Your task to perform on an android device: Open internet settings Image 0: 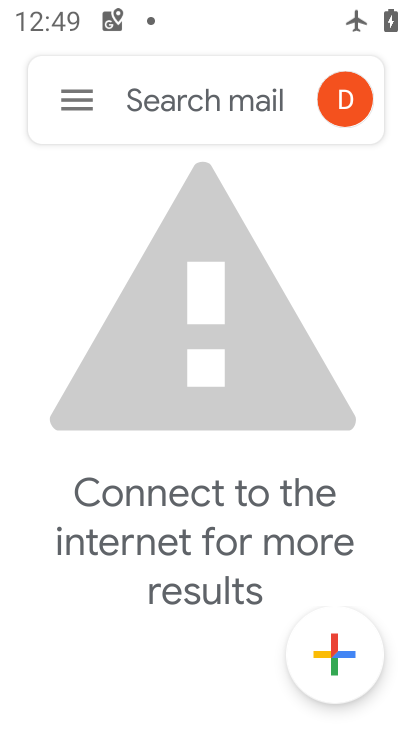
Step 0: press home button
Your task to perform on an android device: Open internet settings Image 1: 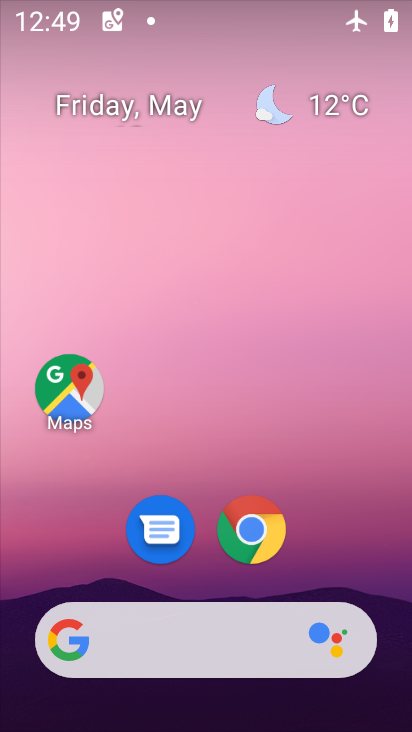
Step 1: drag from (311, 538) to (340, 218)
Your task to perform on an android device: Open internet settings Image 2: 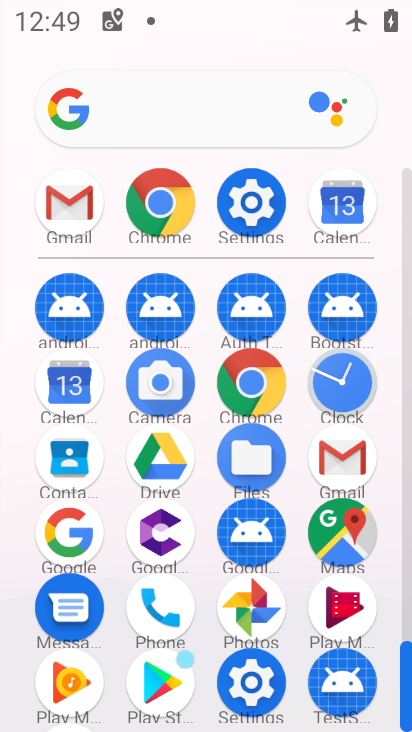
Step 2: click (273, 205)
Your task to perform on an android device: Open internet settings Image 3: 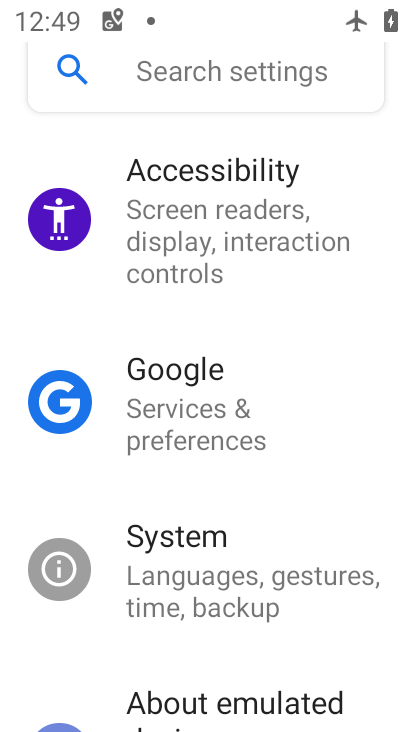
Step 3: drag from (237, 190) to (217, 704)
Your task to perform on an android device: Open internet settings Image 4: 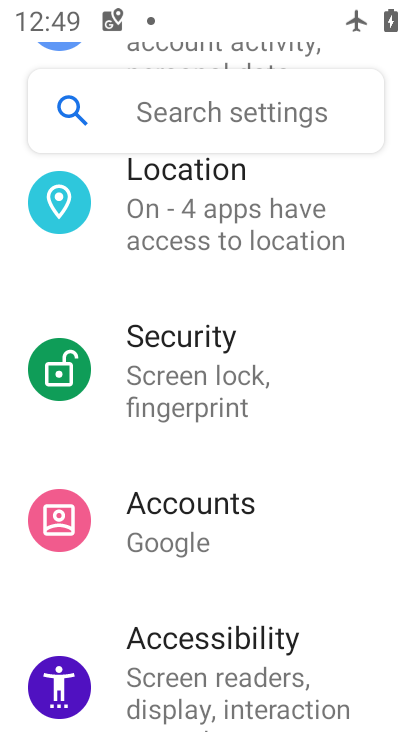
Step 4: drag from (201, 144) to (206, 659)
Your task to perform on an android device: Open internet settings Image 5: 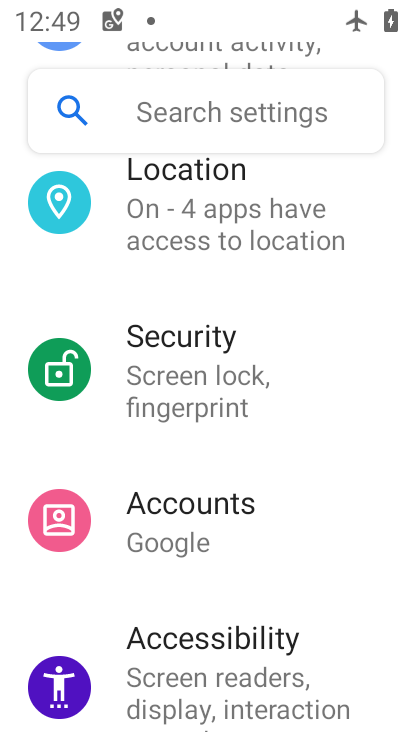
Step 5: click (202, 474)
Your task to perform on an android device: Open internet settings Image 6: 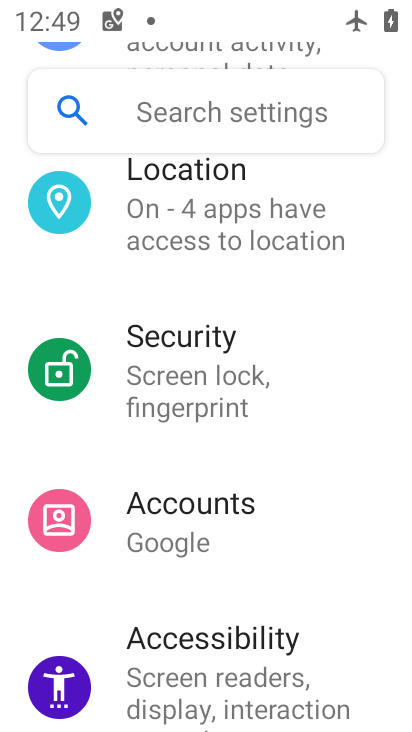
Step 6: drag from (121, 417) to (125, 518)
Your task to perform on an android device: Open internet settings Image 7: 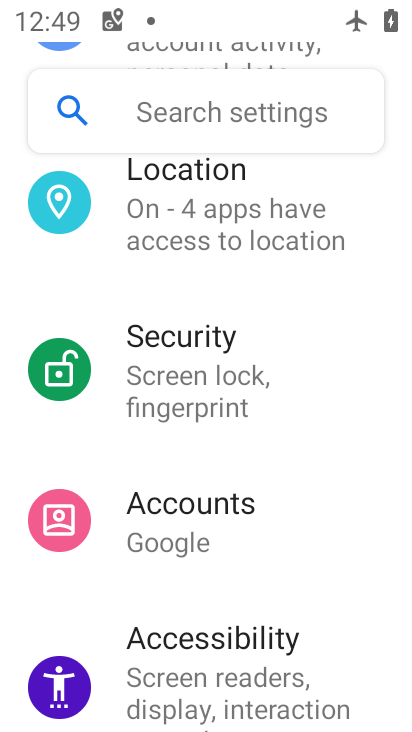
Step 7: drag from (157, 236) to (168, 539)
Your task to perform on an android device: Open internet settings Image 8: 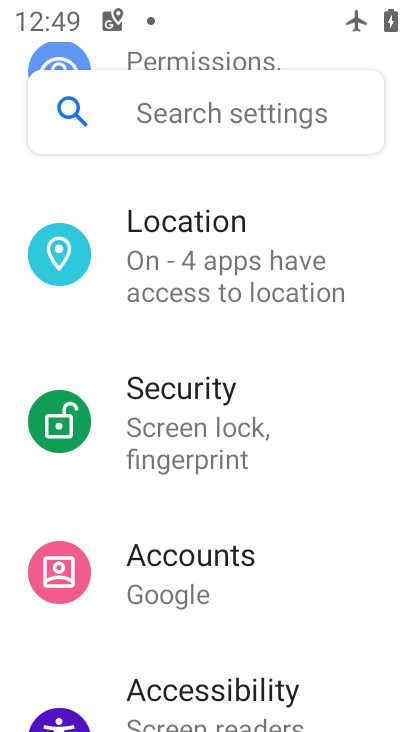
Step 8: drag from (160, 373) to (165, 554)
Your task to perform on an android device: Open internet settings Image 9: 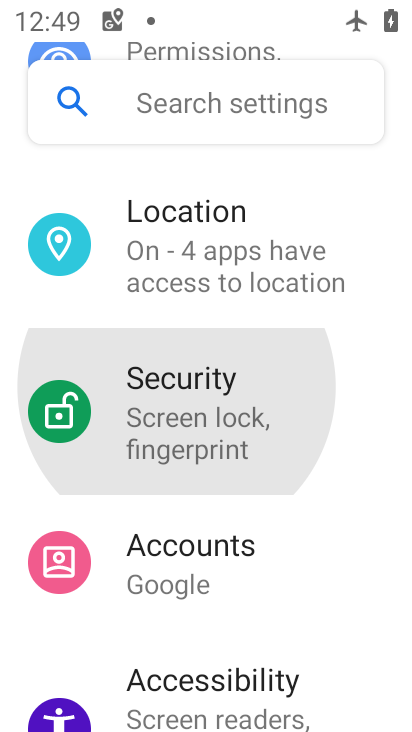
Step 9: drag from (190, 250) to (182, 582)
Your task to perform on an android device: Open internet settings Image 10: 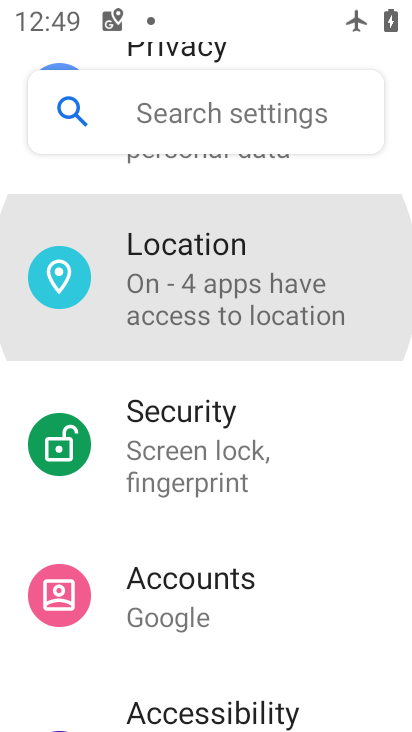
Step 10: drag from (175, 522) to (194, 624)
Your task to perform on an android device: Open internet settings Image 11: 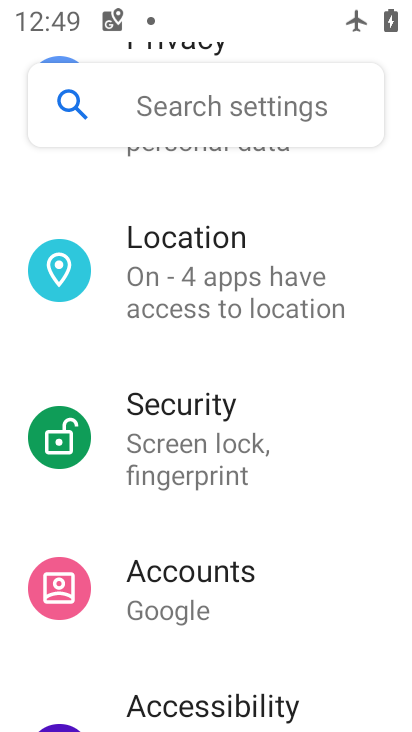
Step 11: drag from (186, 291) to (185, 669)
Your task to perform on an android device: Open internet settings Image 12: 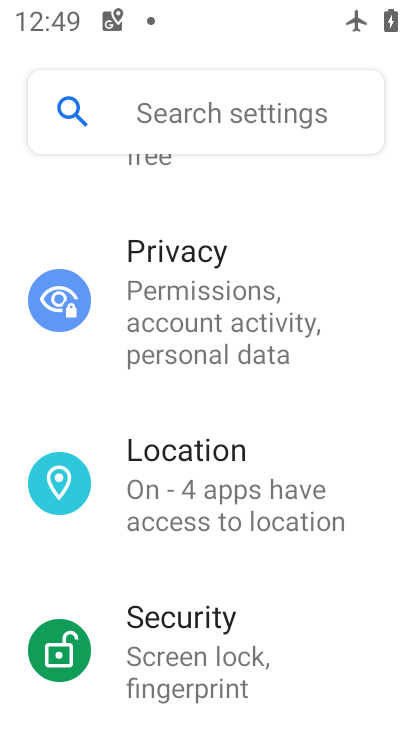
Step 12: drag from (160, 343) to (149, 519)
Your task to perform on an android device: Open internet settings Image 13: 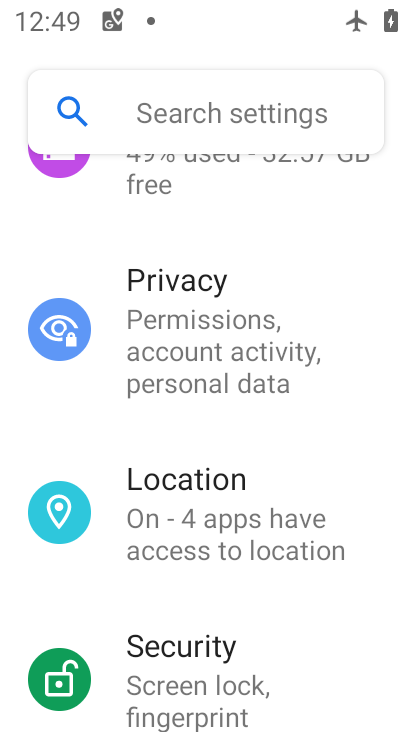
Step 13: drag from (276, 229) to (278, 508)
Your task to perform on an android device: Open internet settings Image 14: 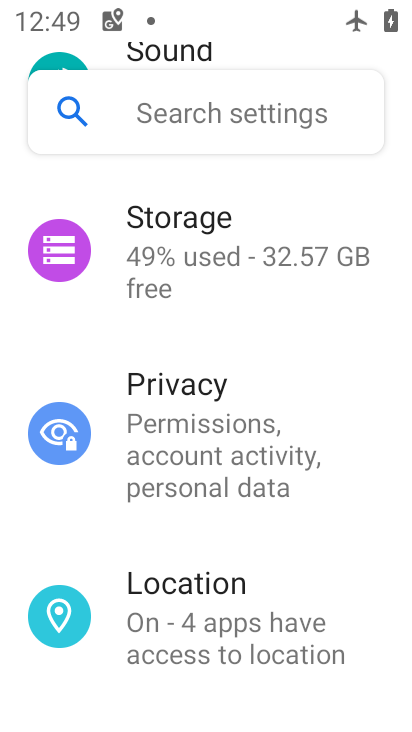
Step 14: drag from (315, 356) to (321, 542)
Your task to perform on an android device: Open internet settings Image 15: 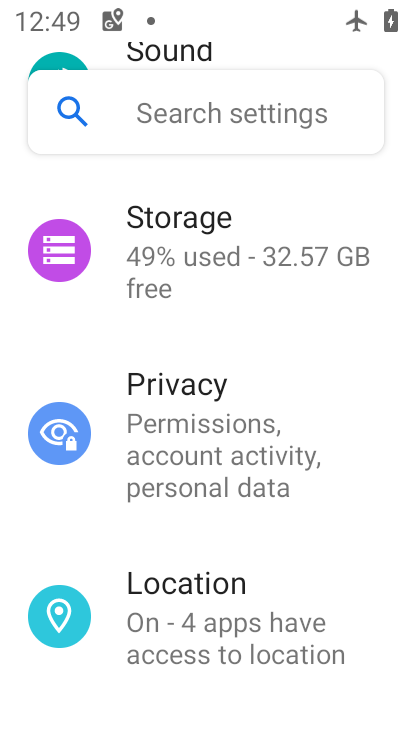
Step 15: drag from (299, 208) to (152, 537)
Your task to perform on an android device: Open internet settings Image 16: 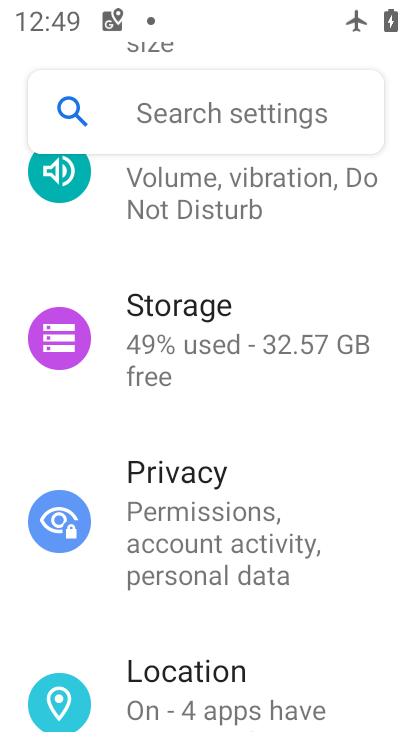
Step 16: drag from (113, 204) to (169, 564)
Your task to perform on an android device: Open internet settings Image 17: 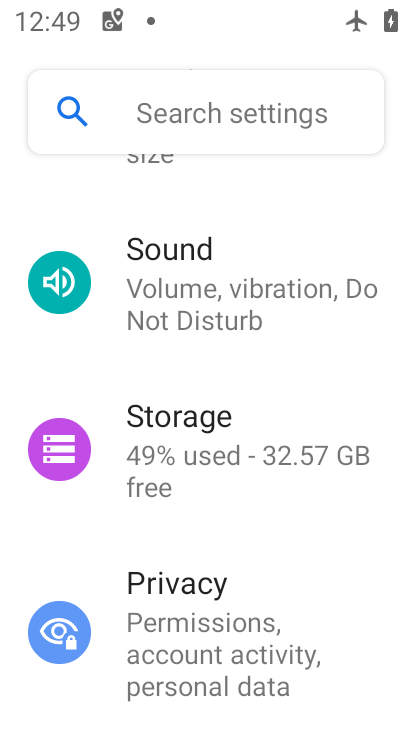
Step 17: drag from (163, 259) to (223, 588)
Your task to perform on an android device: Open internet settings Image 18: 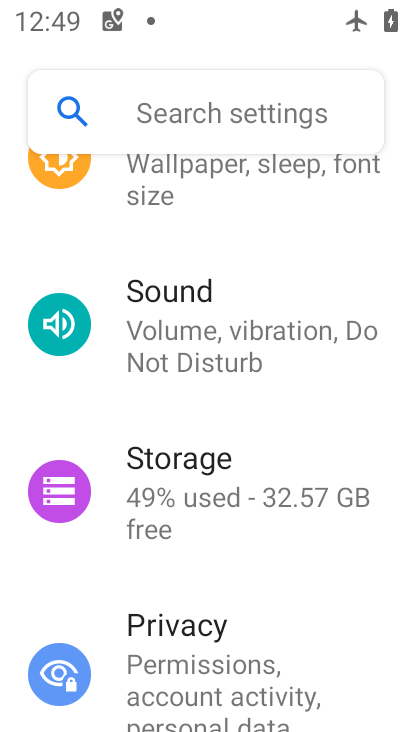
Step 18: drag from (182, 489) to (195, 660)
Your task to perform on an android device: Open internet settings Image 19: 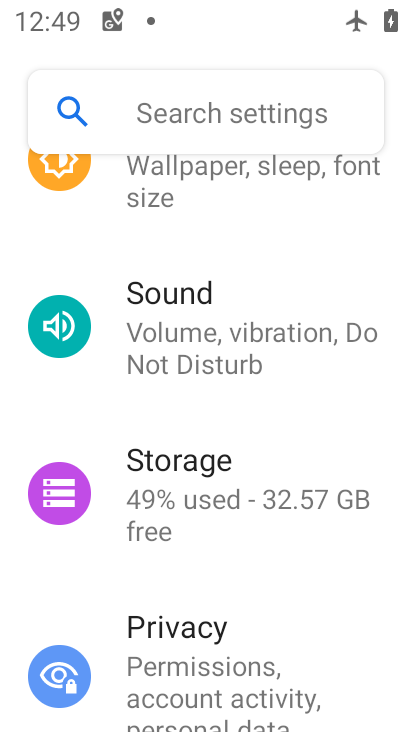
Step 19: drag from (234, 274) to (235, 633)
Your task to perform on an android device: Open internet settings Image 20: 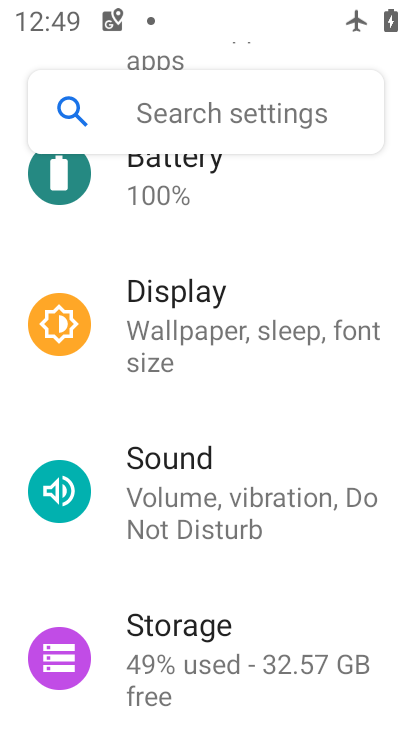
Step 20: drag from (223, 421) to (230, 638)
Your task to perform on an android device: Open internet settings Image 21: 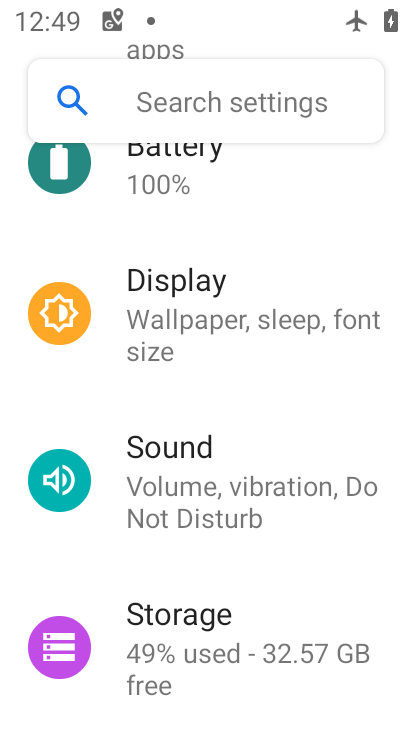
Step 21: drag from (181, 344) to (229, 589)
Your task to perform on an android device: Open internet settings Image 22: 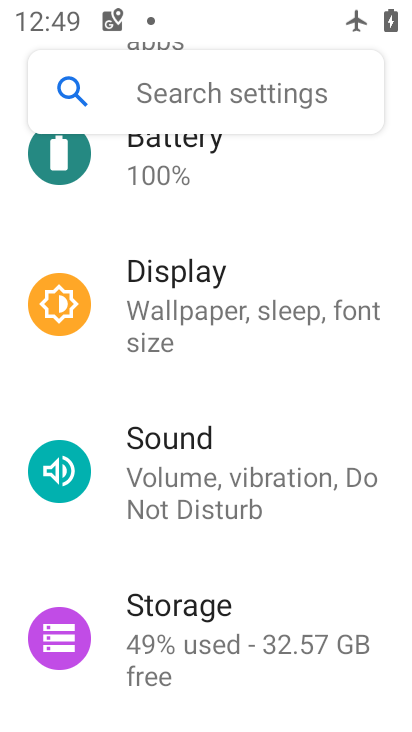
Step 22: drag from (139, 367) to (146, 632)
Your task to perform on an android device: Open internet settings Image 23: 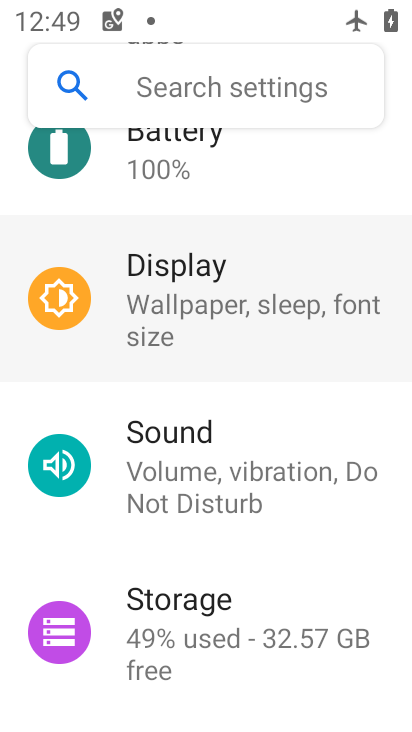
Step 23: drag from (174, 321) to (187, 612)
Your task to perform on an android device: Open internet settings Image 24: 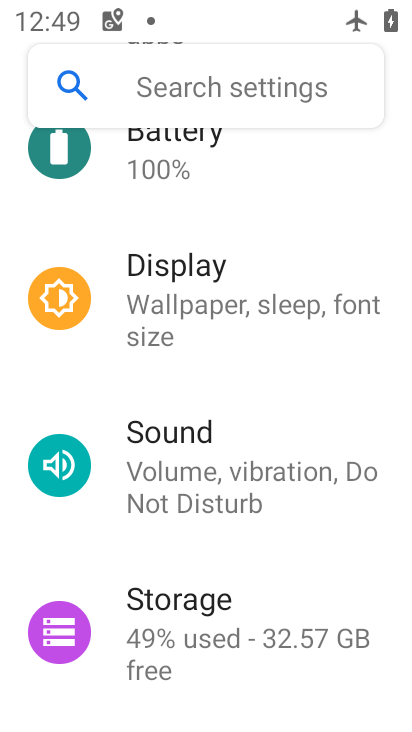
Step 24: drag from (222, 240) to (273, 572)
Your task to perform on an android device: Open internet settings Image 25: 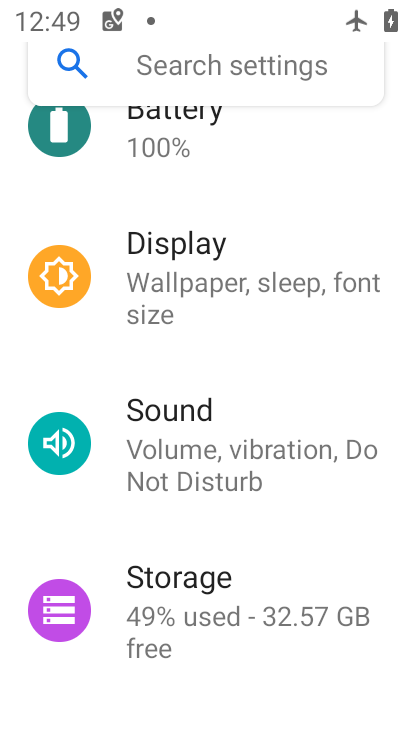
Step 25: drag from (249, 474) to (261, 669)
Your task to perform on an android device: Open internet settings Image 26: 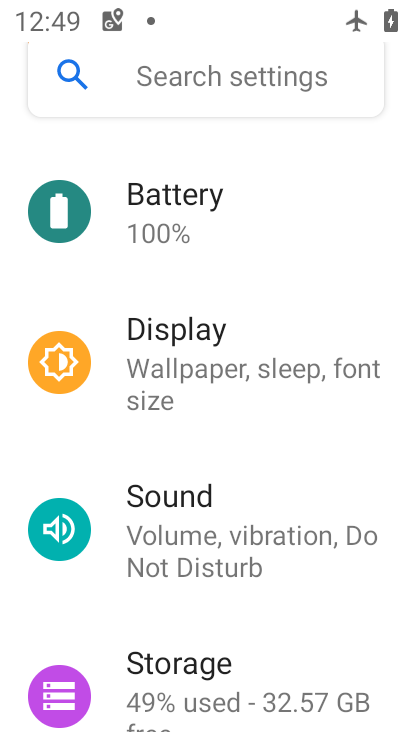
Step 26: drag from (283, 242) to (245, 553)
Your task to perform on an android device: Open internet settings Image 27: 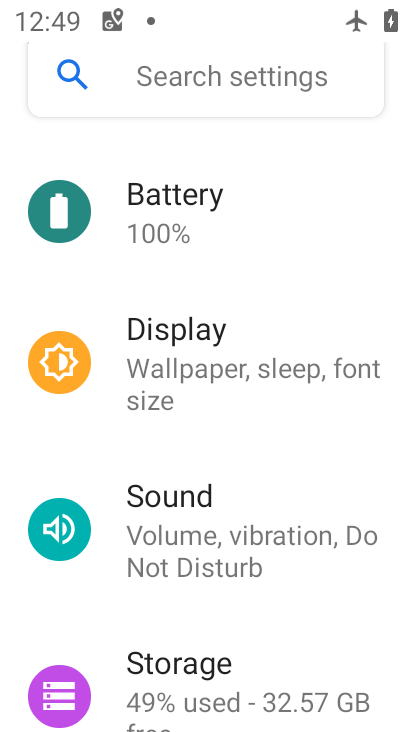
Step 27: drag from (153, 231) to (190, 586)
Your task to perform on an android device: Open internet settings Image 28: 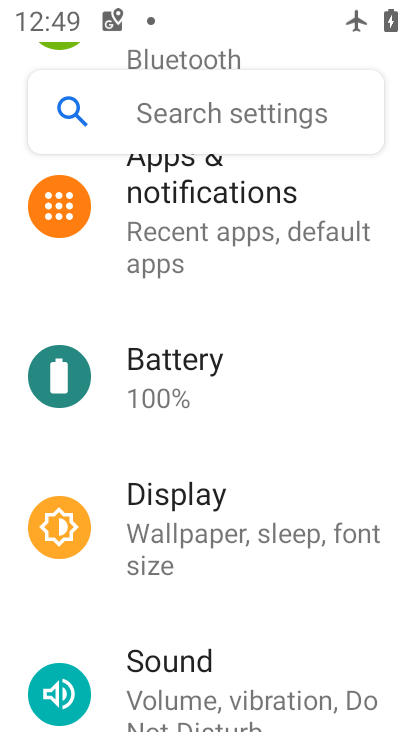
Step 28: drag from (275, 279) to (278, 635)
Your task to perform on an android device: Open internet settings Image 29: 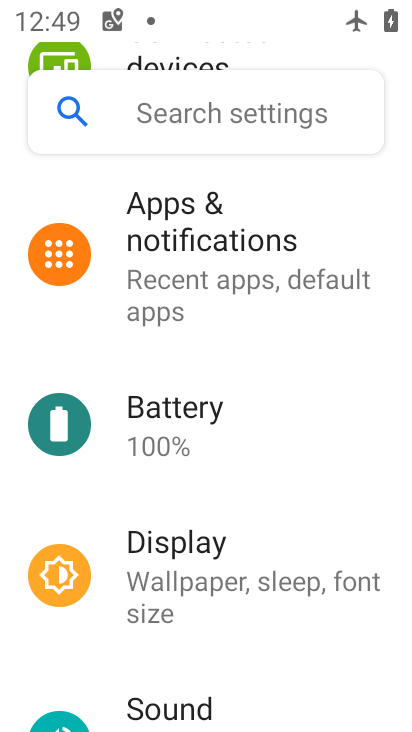
Step 29: drag from (203, 390) to (210, 679)
Your task to perform on an android device: Open internet settings Image 30: 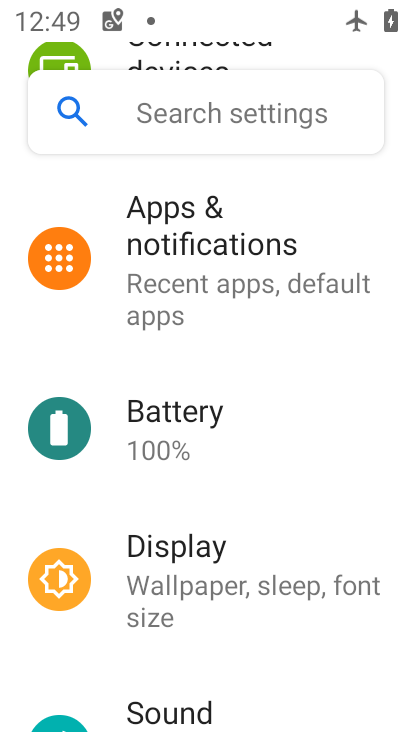
Step 30: drag from (267, 194) to (300, 660)
Your task to perform on an android device: Open internet settings Image 31: 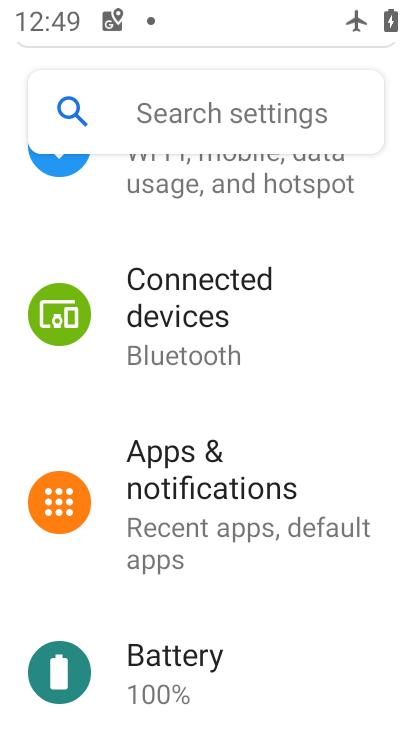
Step 31: drag from (279, 417) to (276, 579)
Your task to perform on an android device: Open internet settings Image 32: 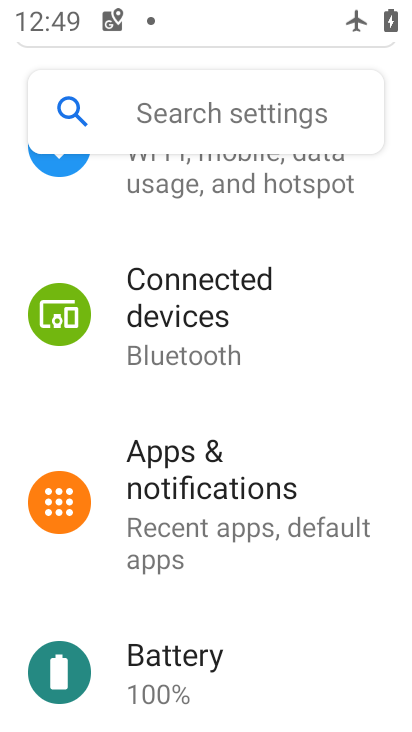
Step 32: drag from (248, 222) to (267, 547)
Your task to perform on an android device: Open internet settings Image 33: 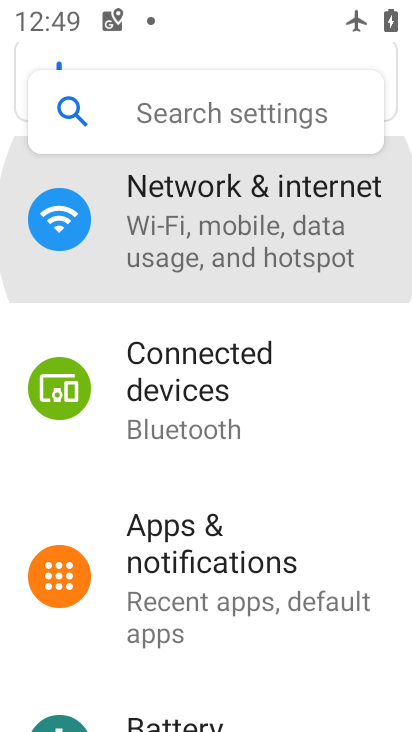
Step 33: drag from (282, 400) to (267, 651)
Your task to perform on an android device: Open internet settings Image 34: 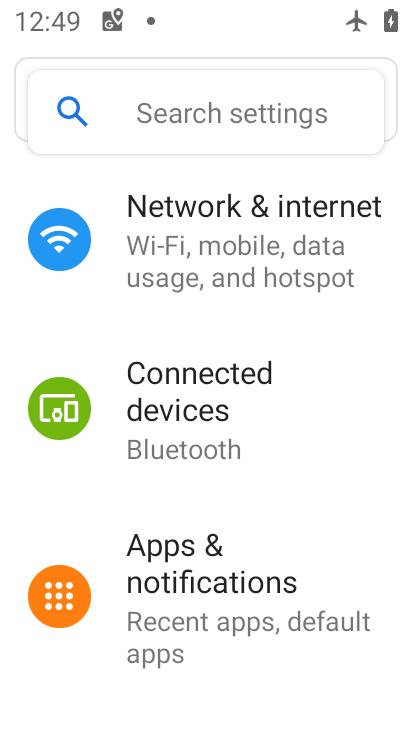
Step 34: drag from (205, 241) to (176, 600)
Your task to perform on an android device: Open internet settings Image 35: 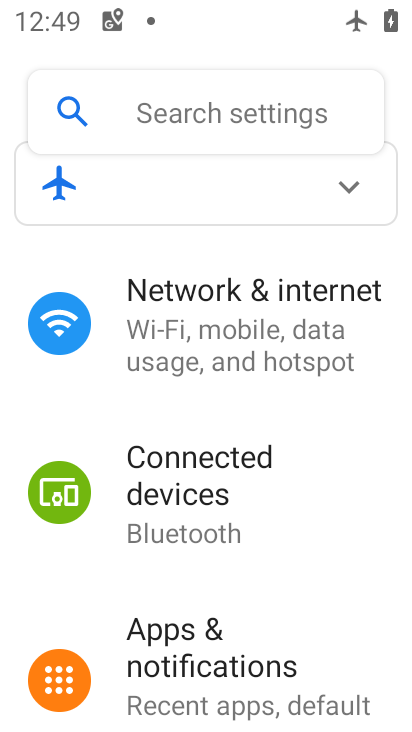
Step 35: drag from (147, 357) to (157, 614)
Your task to perform on an android device: Open internet settings Image 36: 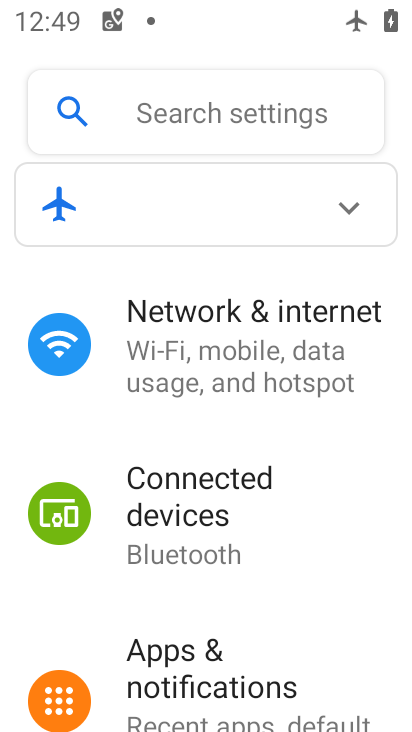
Step 36: click (250, 331)
Your task to perform on an android device: Open internet settings Image 37: 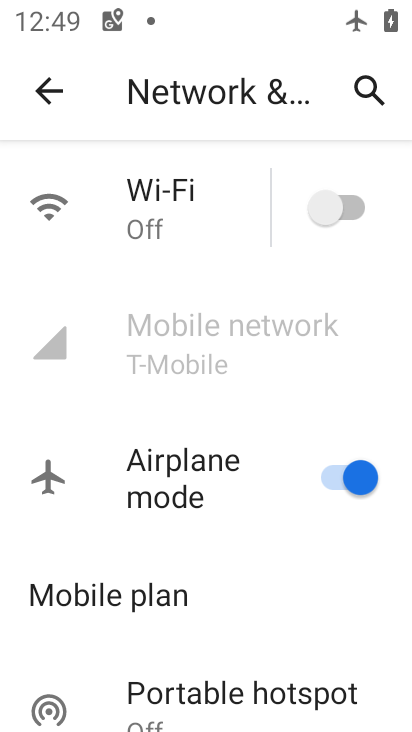
Step 37: task complete